Your task to perform on an android device: Search for vegetarian restaurants on Maps Image 0: 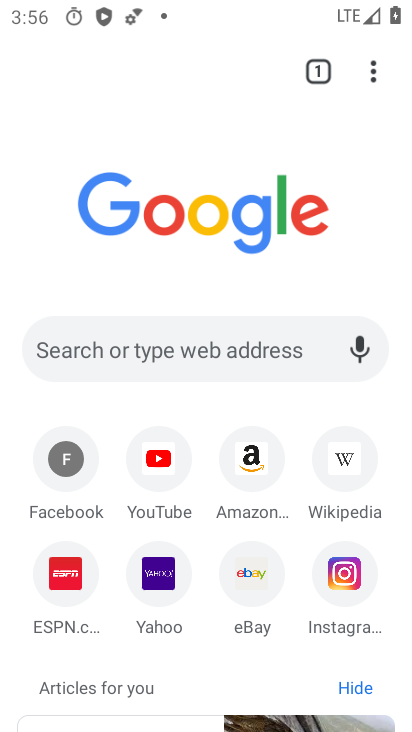
Step 0: press home button
Your task to perform on an android device: Search for vegetarian restaurants on Maps Image 1: 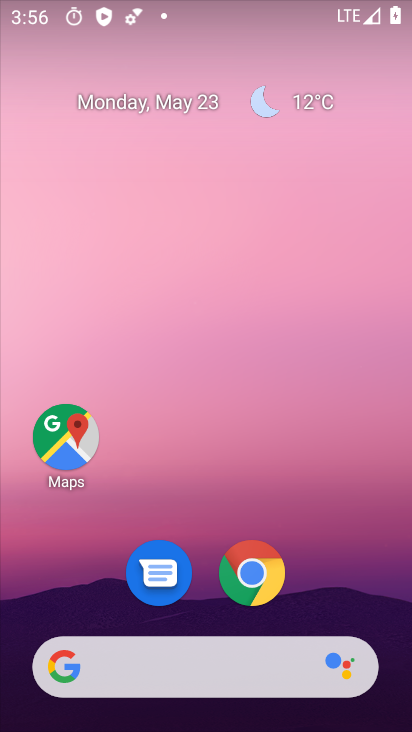
Step 1: click (61, 426)
Your task to perform on an android device: Search for vegetarian restaurants on Maps Image 2: 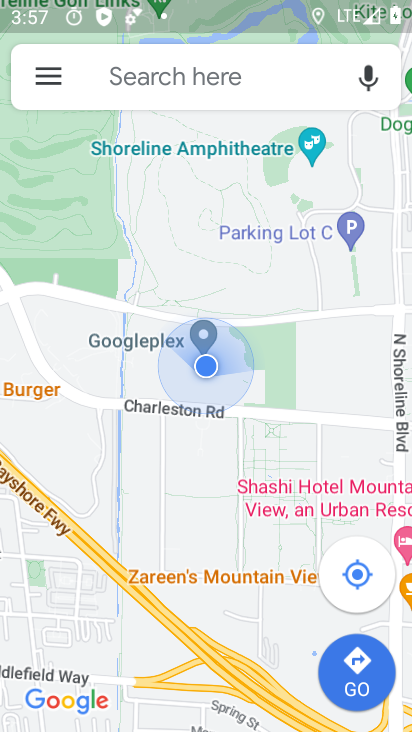
Step 2: click (185, 79)
Your task to perform on an android device: Search for vegetarian restaurants on Maps Image 3: 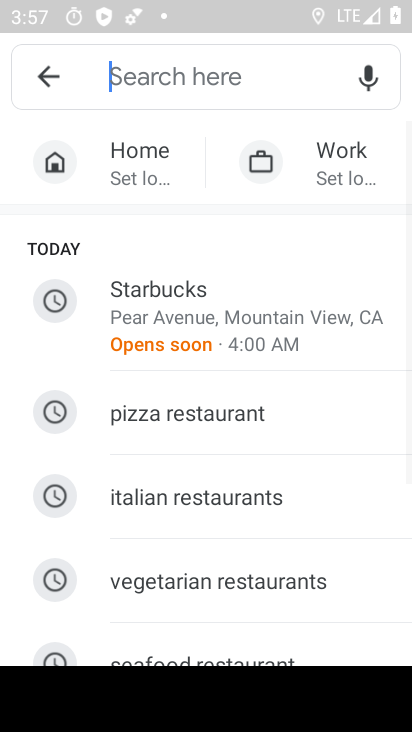
Step 3: click (160, 598)
Your task to perform on an android device: Search for vegetarian restaurants on Maps Image 4: 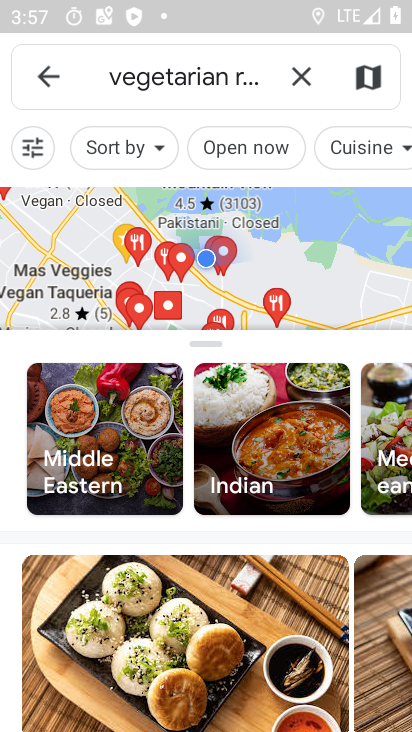
Step 4: task complete